Your task to perform on an android device: Open the phone app and click the voicemail tab. Image 0: 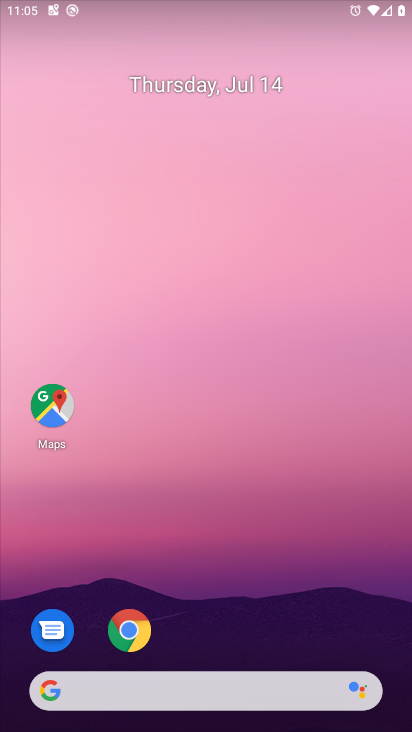
Step 0: drag from (68, 605) to (235, 175)
Your task to perform on an android device: Open the phone app and click the voicemail tab. Image 1: 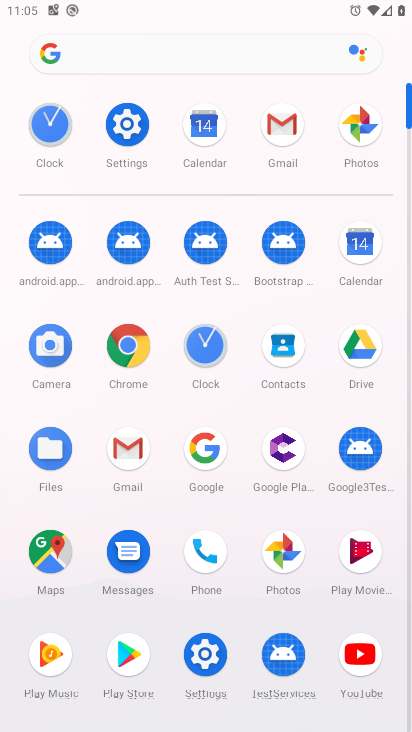
Step 1: click (211, 550)
Your task to perform on an android device: Open the phone app and click the voicemail tab. Image 2: 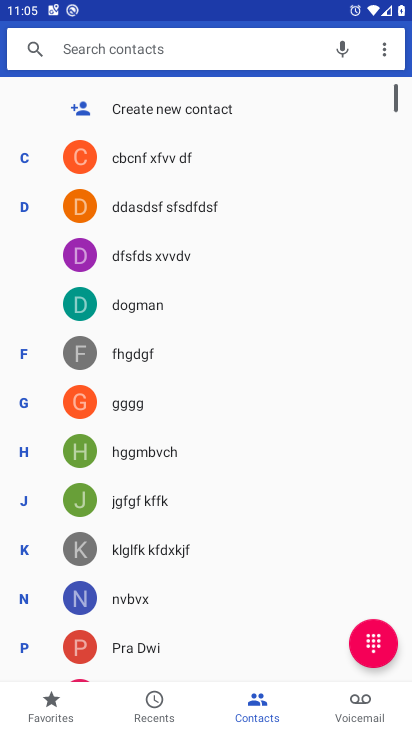
Step 2: click (360, 711)
Your task to perform on an android device: Open the phone app and click the voicemail tab. Image 3: 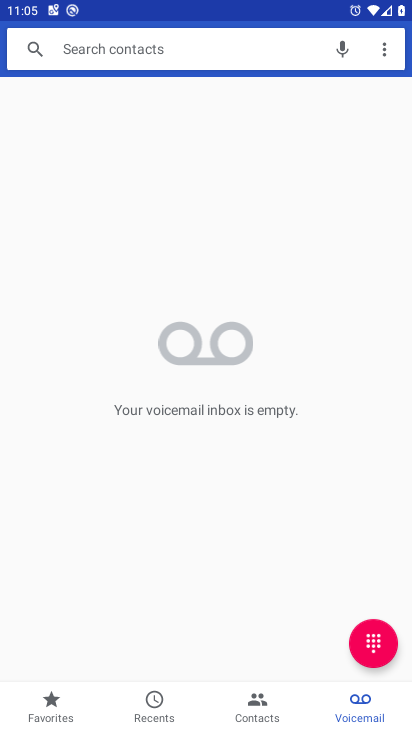
Step 3: task complete